Your task to perform on an android device: see sites visited before in the chrome app Image 0: 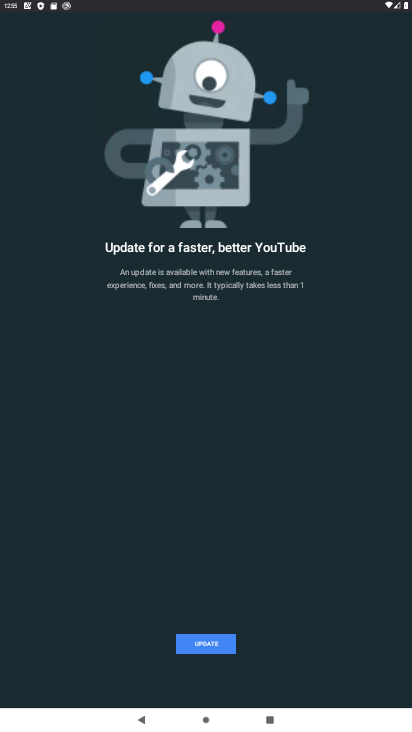
Step 0: press back button
Your task to perform on an android device: see sites visited before in the chrome app Image 1: 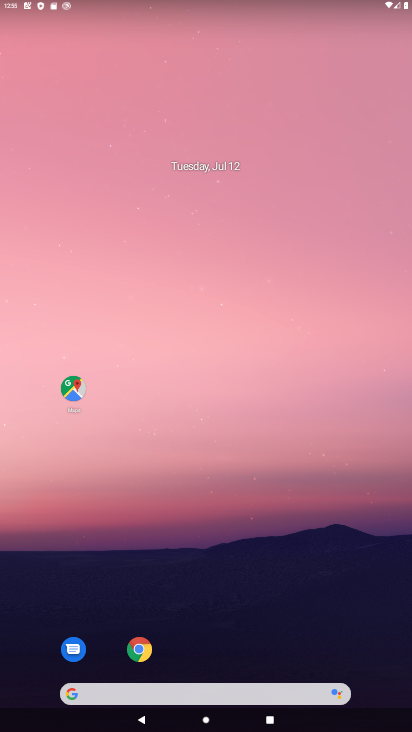
Step 1: drag from (212, 637) to (178, 185)
Your task to perform on an android device: see sites visited before in the chrome app Image 2: 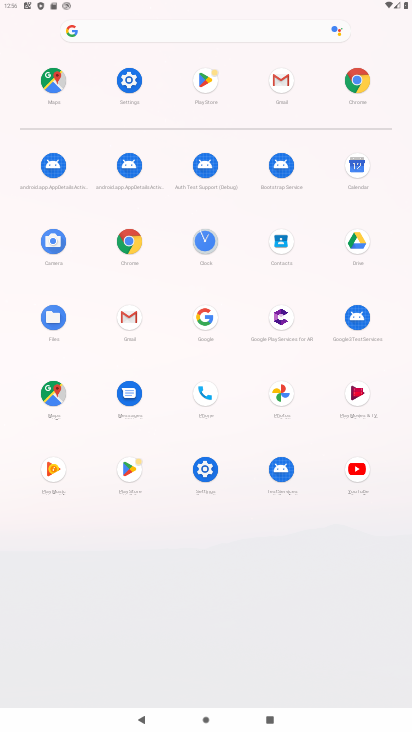
Step 2: click (349, 108)
Your task to perform on an android device: see sites visited before in the chrome app Image 3: 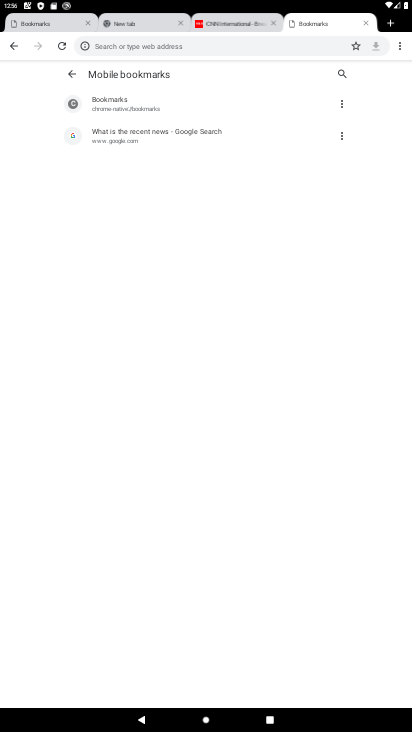
Step 3: click (402, 46)
Your task to perform on an android device: see sites visited before in the chrome app Image 4: 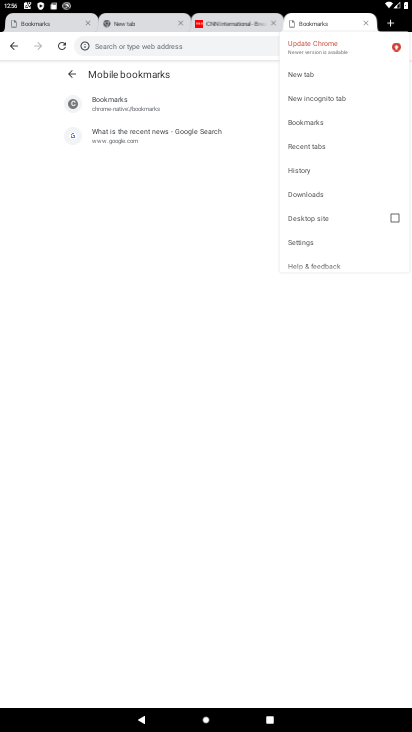
Step 4: click (326, 121)
Your task to perform on an android device: see sites visited before in the chrome app Image 5: 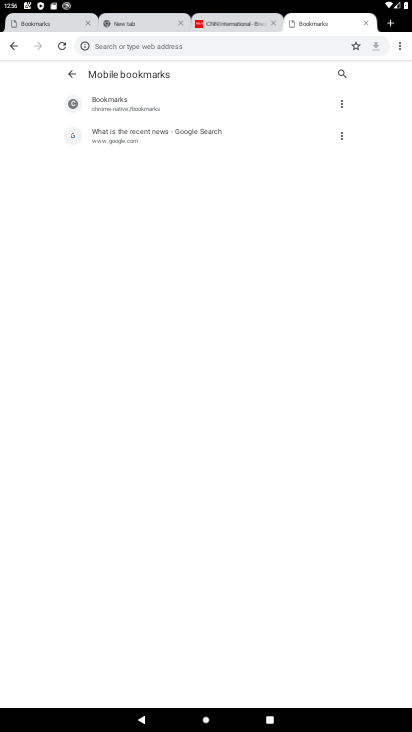
Step 5: task complete